Your task to perform on an android device: Open calendar and show me the first week of next month Image 0: 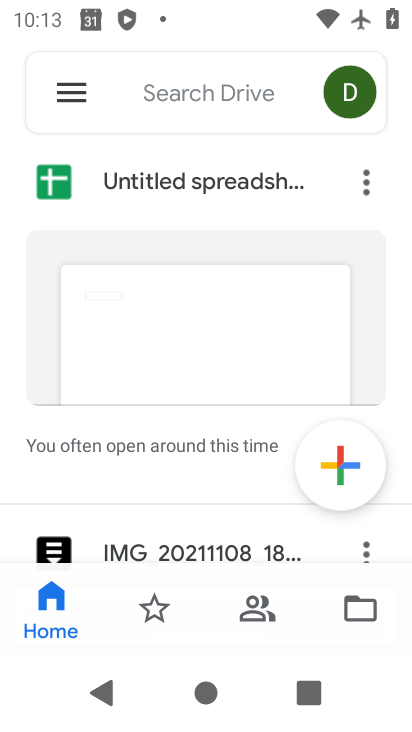
Step 0: press home button
Your task to perform on an android device: Open calendar and show me the first week of next month Image 1: 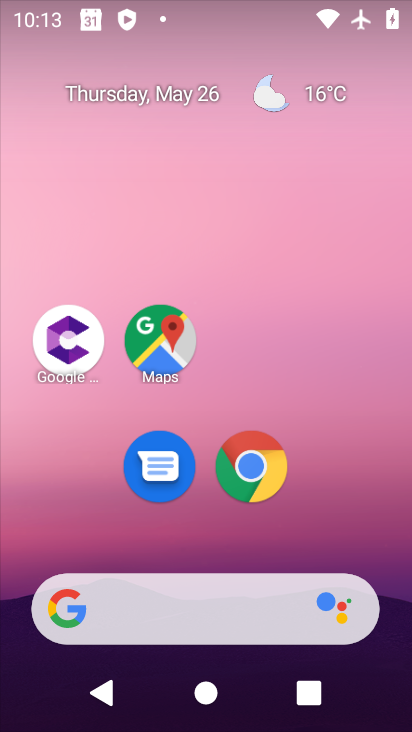
Step 1: drag from (348, 511) to (256, 106)
Your task to perform on an android device: Open calendar and show me the first week of next month Image 2: 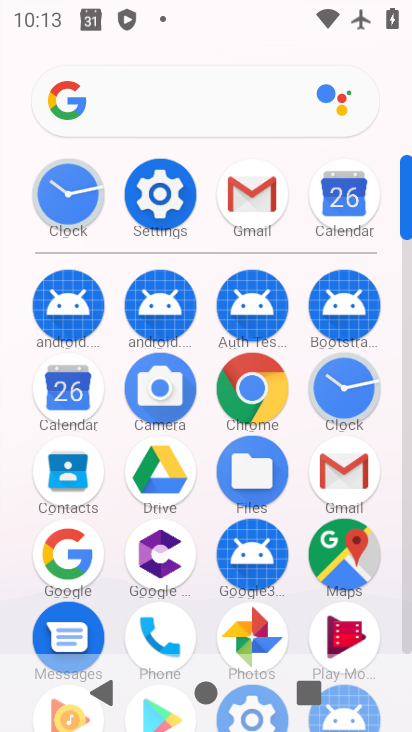
Step 2: click (65, 388)
Your task to perform on an android device: Open calendar and show me the first week of next month Image 3: 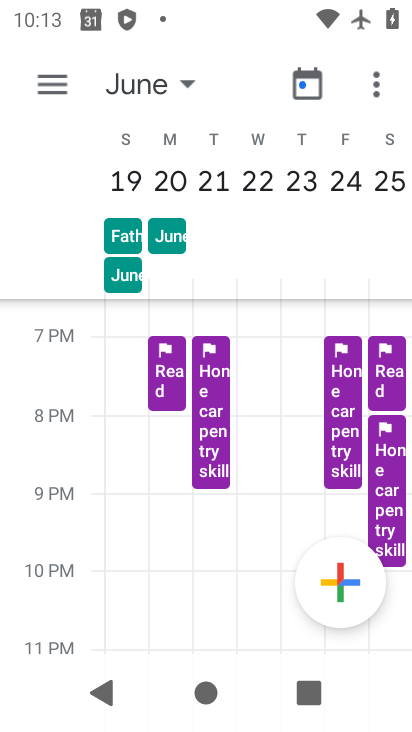
Step 3: click (178, 80)
Your task to perform on an android device: Open calendar and show me the first week of next month Image 4: 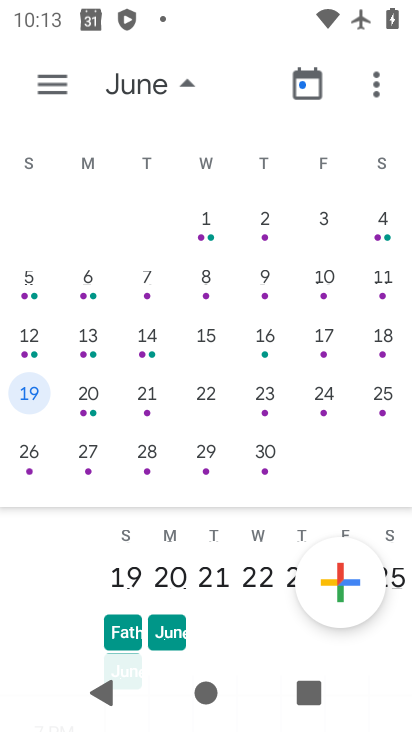
Step 4: click (200, 226)
Your task to perform on an android device: Open calendar and show me the first week of next month Image 5: 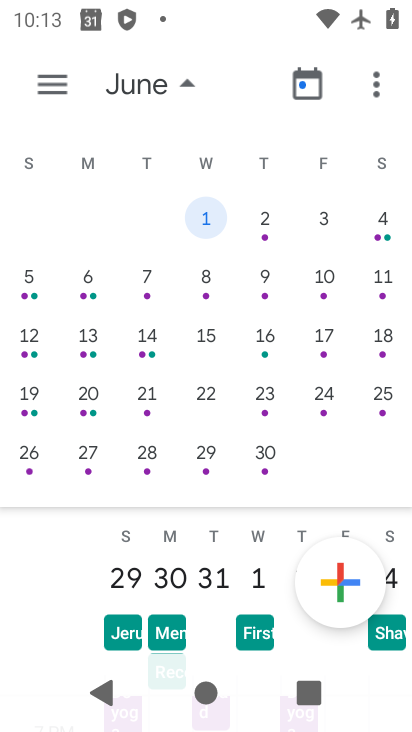
Step 5: task complete